Your task to perform on an android device: allow cookies in the chrome app Image 0: 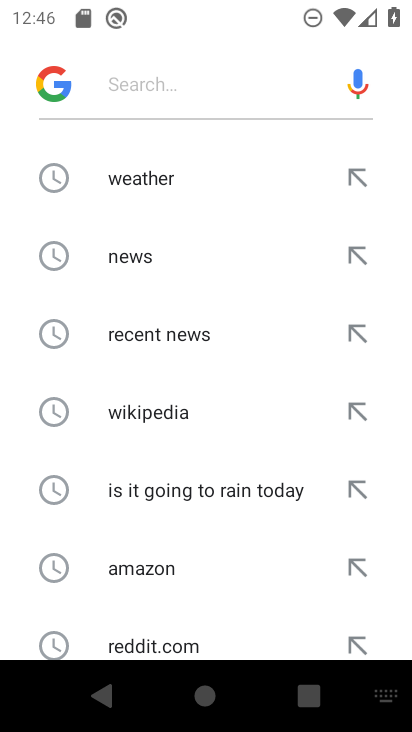
Step 0: press back button
Your task to perform on an android device: allow cookies in the chrome app Image 1: 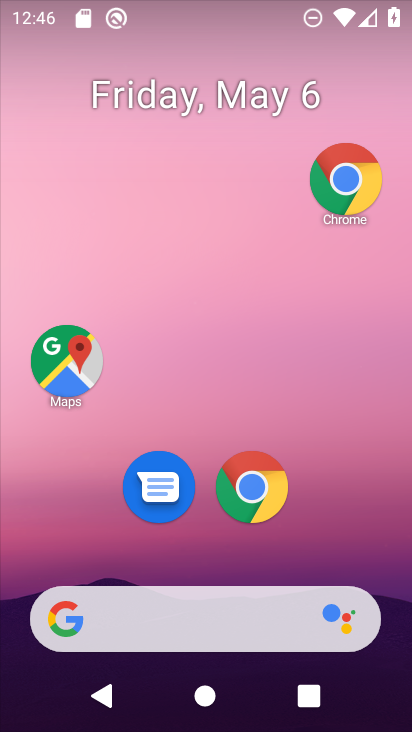
Step 1: click (262, 486)
Your task to perform on an android device: allow cookies in the chrome app Image 2: 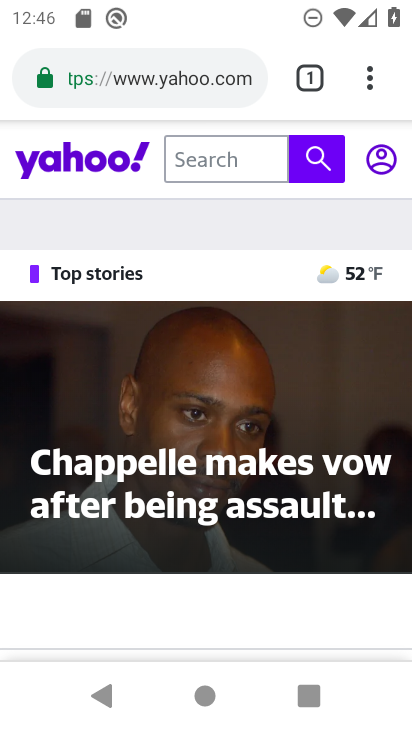
Step 2: click (381, 75)
Your task to perform on an android device: allow cookies in the chrome app Image 3: 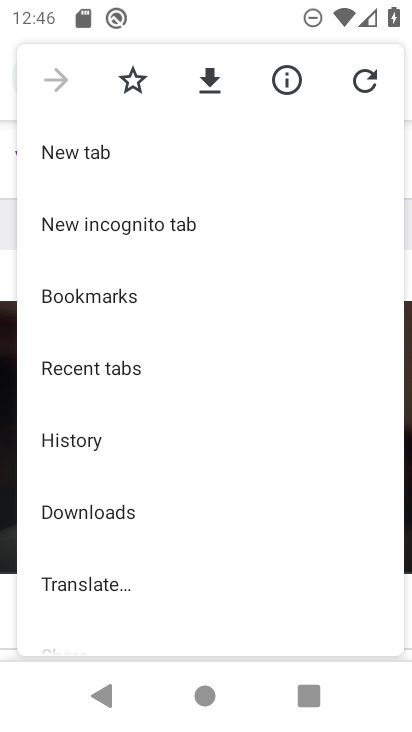
Step 3: drag from (160, 556) to (160, 343)
Your task to perform on an android device: allow cookies in the chrome app Image 4: 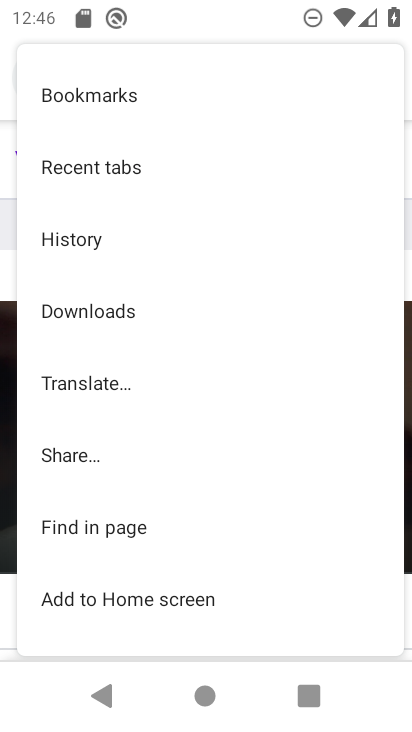
Step 4: drag from (160, 486) to (170, 323)
Your task to perform on an android device: allow cookies in the chrome app Image 5: 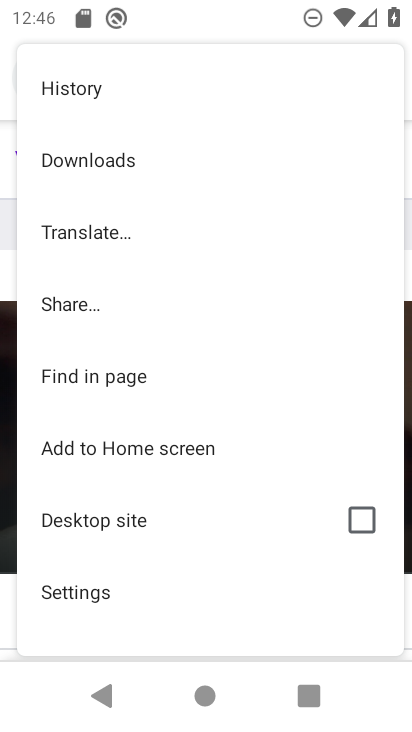
Step 5: click (142, 597)
Your task to perform on an android device: allow cookies in the chrome app Image 6: 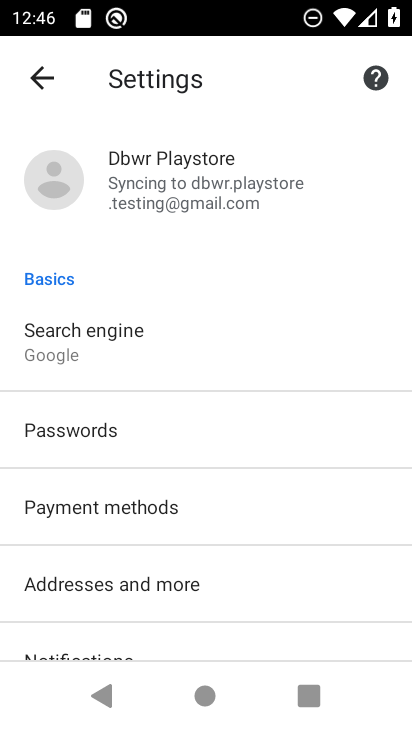
Step 6: task complete